Your task to perform on an android device: Open Youtube and go to the subscriptions tab Image 0: 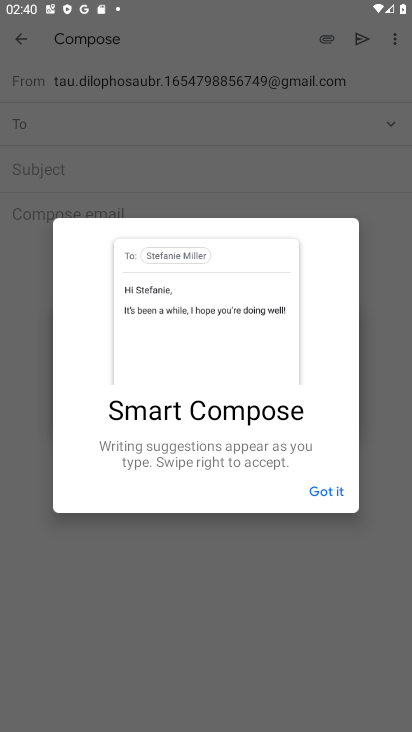
Step 0: press home button
Your task to perform on an android device: Open Youtube and go to the subscriptions tab Image 1: 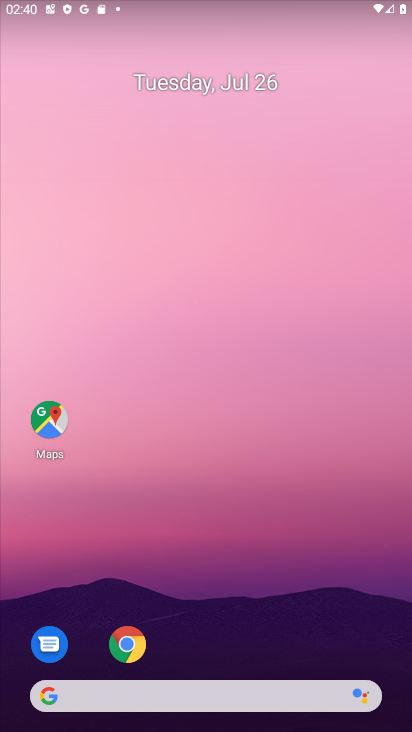
Step 1: drag from (205, 671) to (249, 104)
Your task to perform on an android device: Open Youtube and go to the subscriptions tab Image 2: 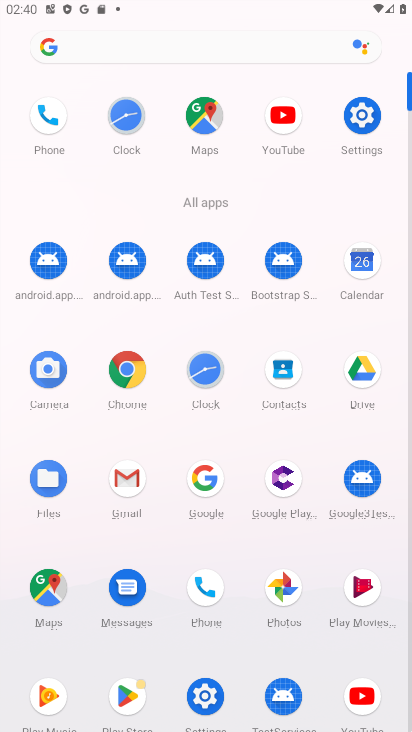
Step 2: click (366, 689)
Your task to perform on an android device: Open Youtube and go to the subscriptions tab Image 3: 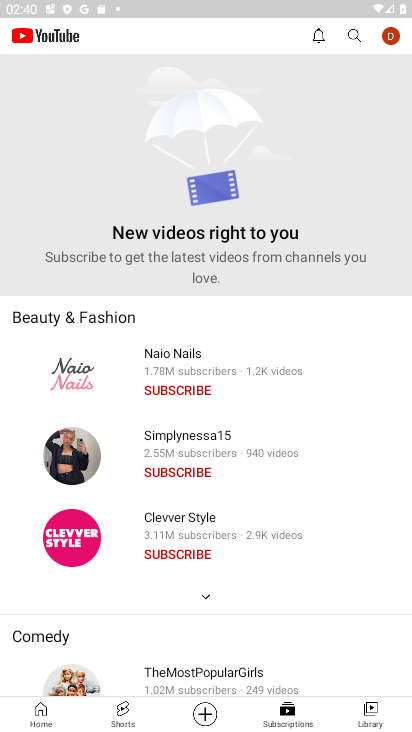
Step 3: click (298, 711)
Your task to perform on an android device: Open Youtube and go to the subscriptions tab Image 4: 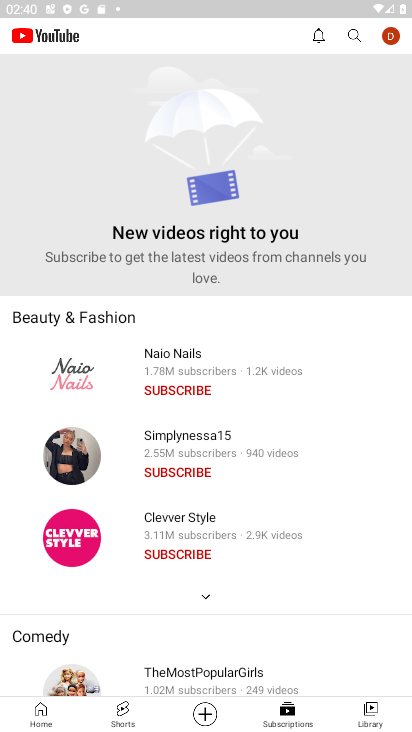
Step 4: task complete